Your task to perform on an android device: Search for sushi restaurants on Maps Image 0: 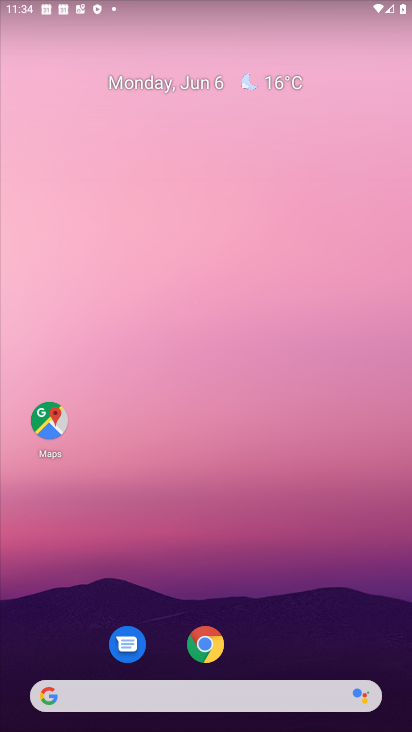
Step 0: click (38, 424)
Your task to perform on an android device: Search for sushi restaurants on Maps Image 1: 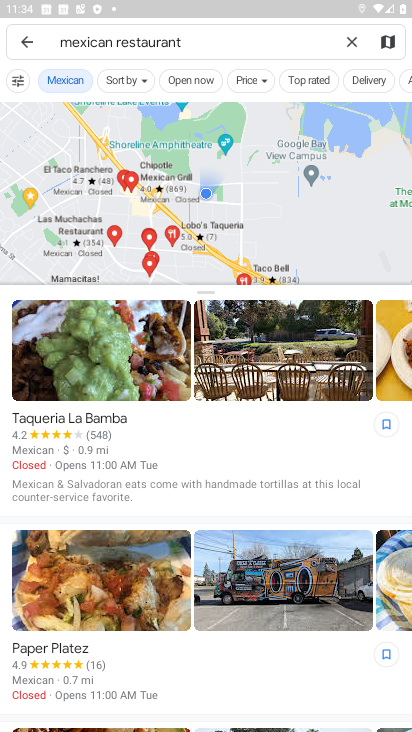
Step 1: click (349, 38)
Your task to perform on an android device: Search for sushi restaurants on Maps Image 2: 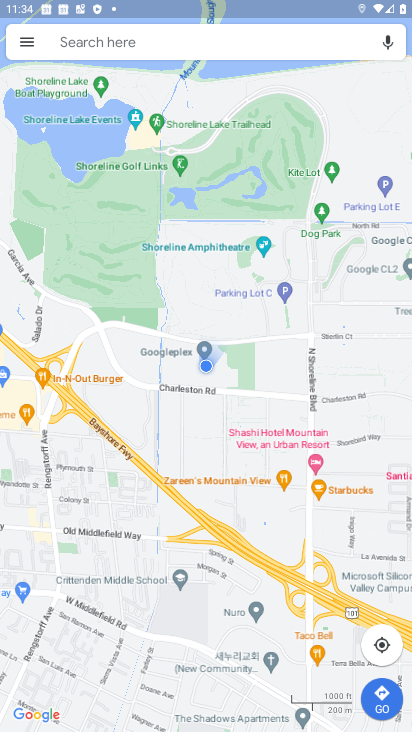
Step 2: click (263, 42)
Your task to perform on an android device: Search for sushi restaurants on Maps Image 3: 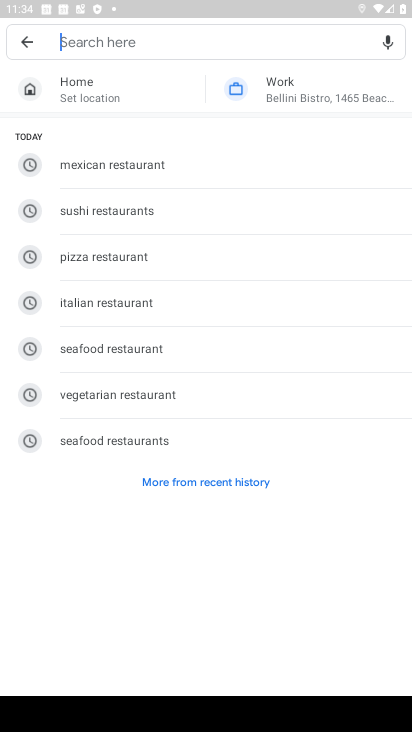
Step 3: click (170, 214)
Your task to perform on an android device: Search for sushi restaurants on Maps Image 4: 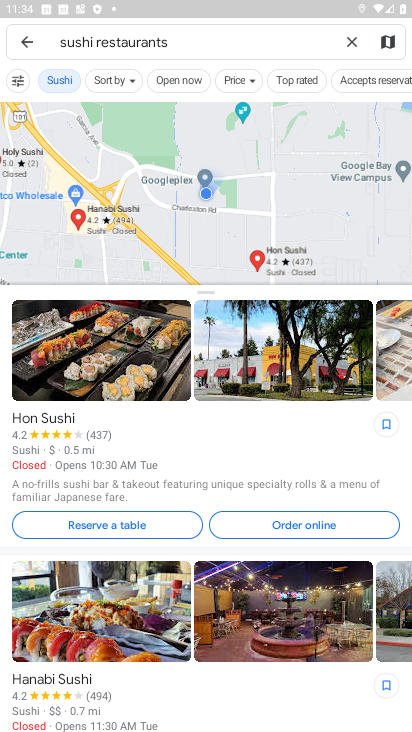
Step 4: task complete